Your task to perform on an android device: check android version Image 0: 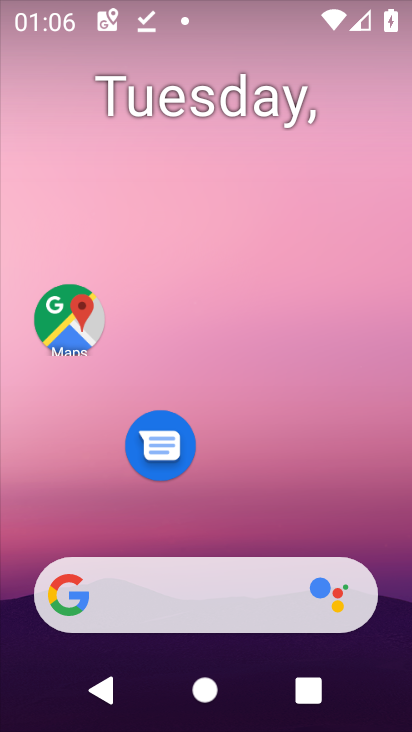
Step 0: drag from (294, 508) to (206, 10)
Your task to perform on an android device: check android version Image 1: 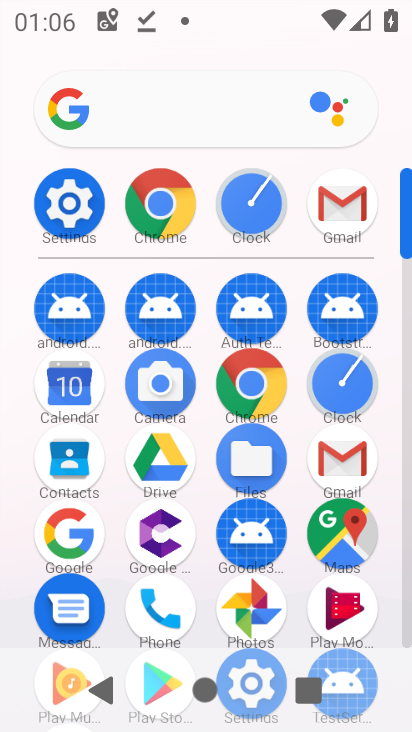
Step 1: click (66, 201)
Your task to perform on an android device: check android version Image 2: 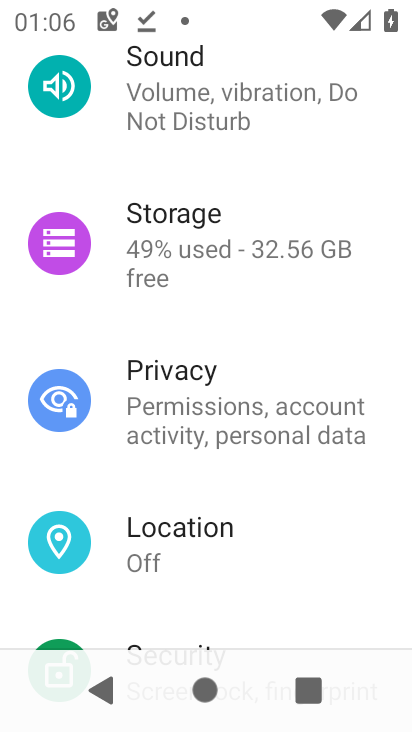
Step 2: drag from (242, 514) to (186, 155)
Your task to perform on an android device: check android version Image 3: 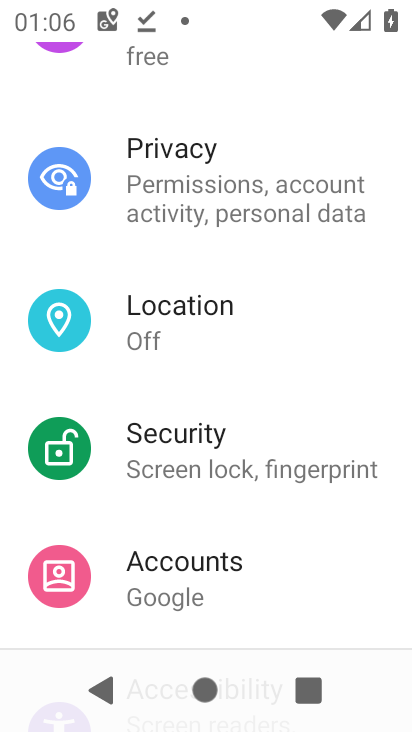
Step 3: drag from (237, 511) to (162, 67)
Your task to perform on an android device: check android version Image 4: 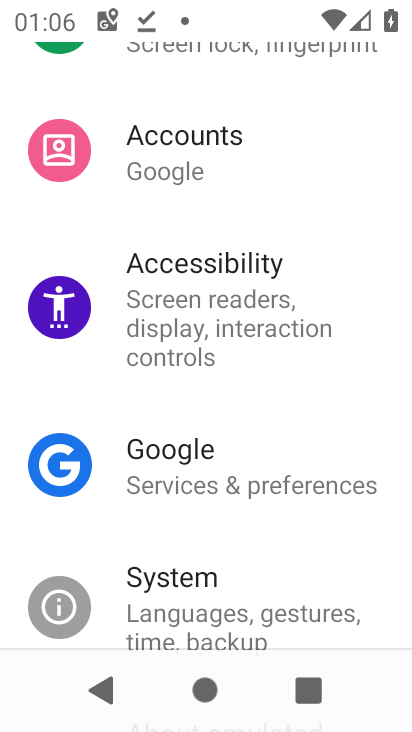
Step 4: drag from (220, 541) to (152, 117)
Your task to perform on an android device: check android version Image 5: 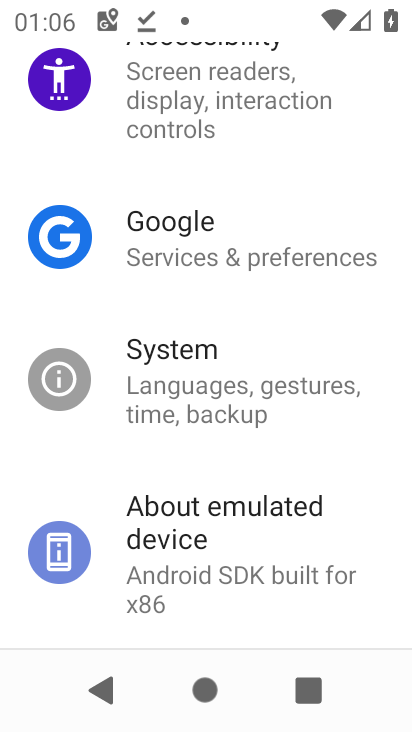
Step 5: click (164, 534)
Your task to perform on an android device: check android version Image 6: 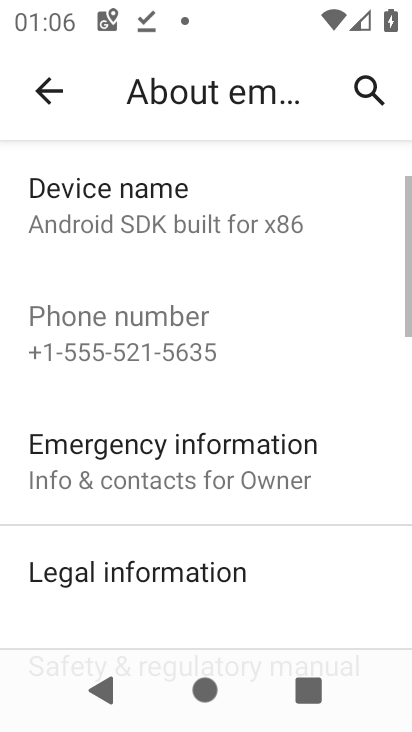
Step 6: task complete